Your task to perform on an android device: open the mobile data screen to see how much data has been used Image 0: 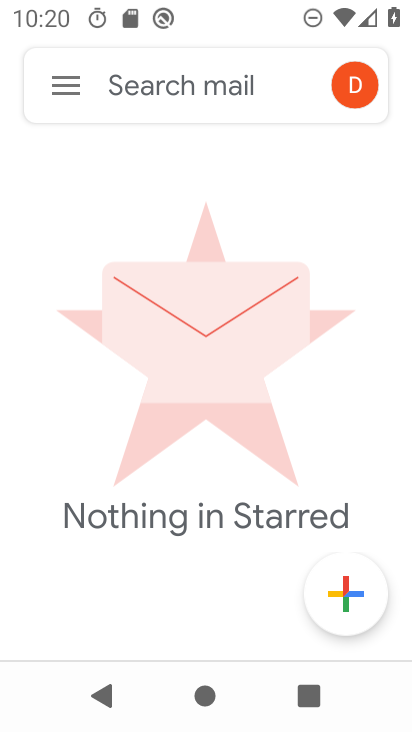
Step 0: press back button
Your task to perform on an android device: open the mobile data screen to see how much data has been used Image 1: 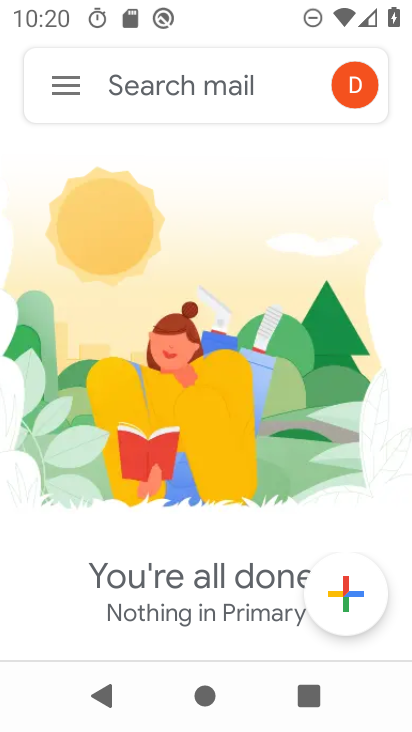
Step 1: press back button
Your task to perform on an android device: open the mobile data screen to see how much data has been used Image 2: 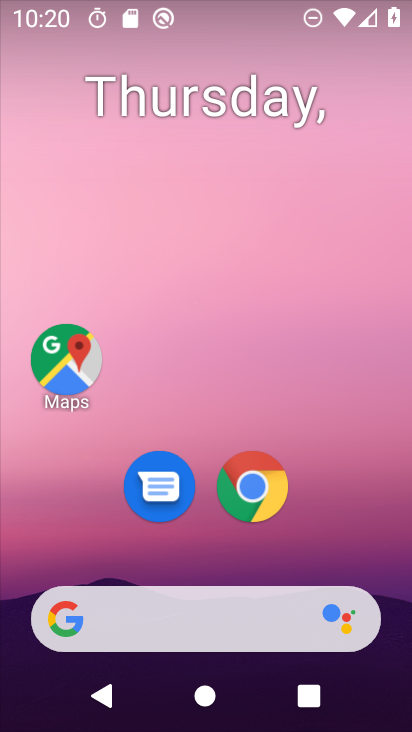
Step 2: drag from (210, 529) to (325, 19)
Your task to perform on an android device: open the mobile data screen to see how much data has been used Image 3: 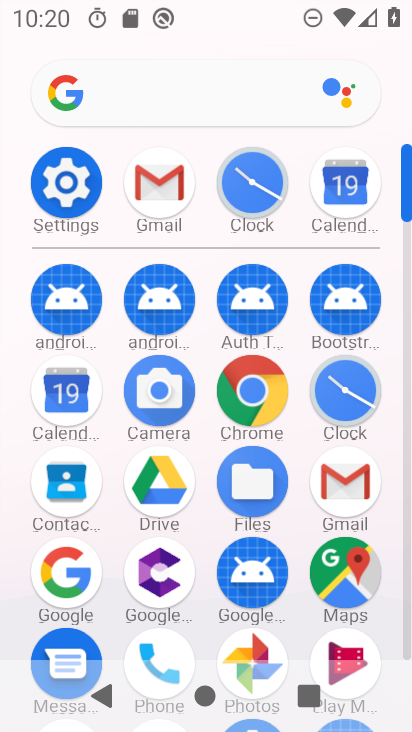
Step 3: click (76, 177)
Your task to perform on an android device: open the mobile data screen to see how much data has been used Image 4: 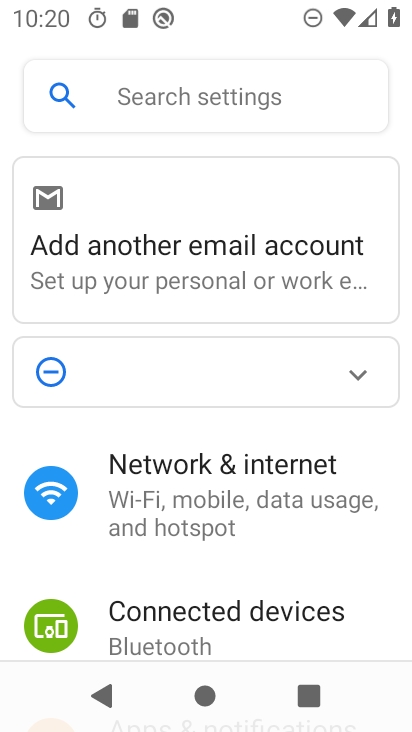
Step 4: click (182, 487)
Your task to perform on an android device: open the mobile data screen to see how much data has been used Image 5: 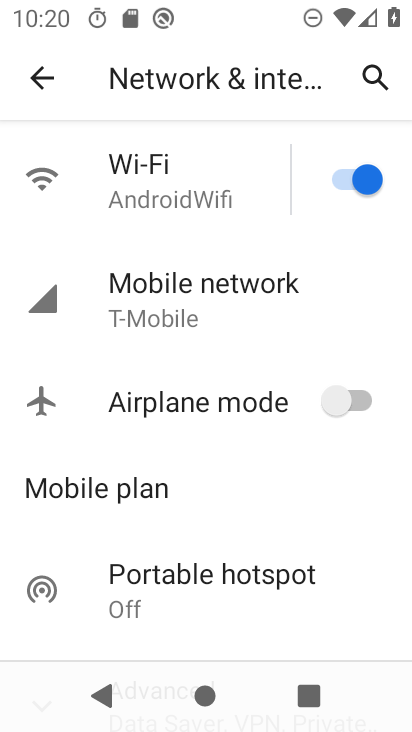
Step 5: click (157, 291)
Your task to perform on an android device: open the mobile data screen to see how much data has been used Image 6: 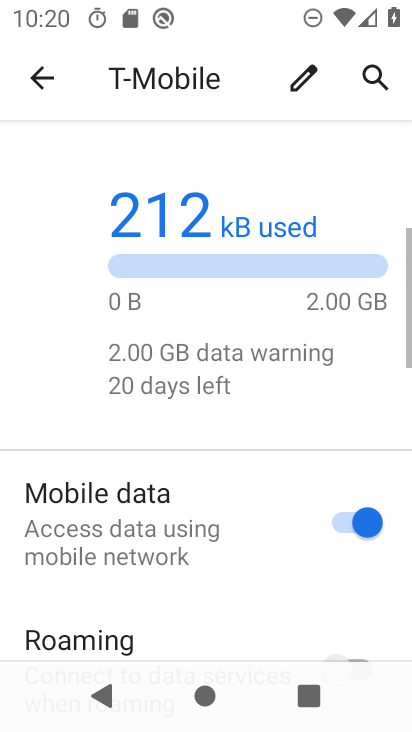
Step 6: drag from (184, 578) to (292, 120)
Your task to perform on an android device: open the mobile data screen to see how much data has been used Image 7: 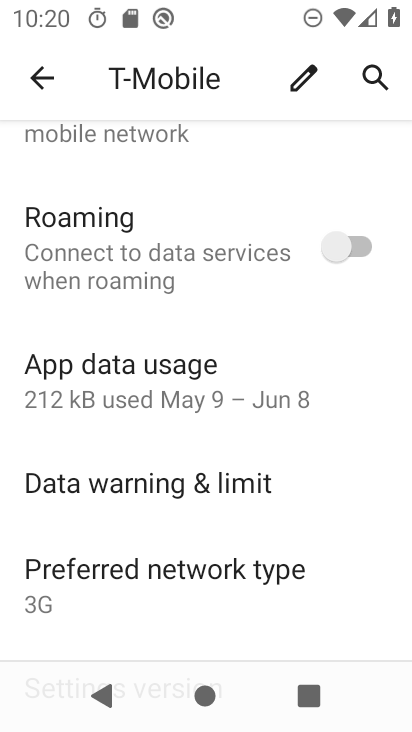
Step 7: click (163, 382)
Your task to perform on an android device: open the mobile data screen to see how much data has been used Image 8: 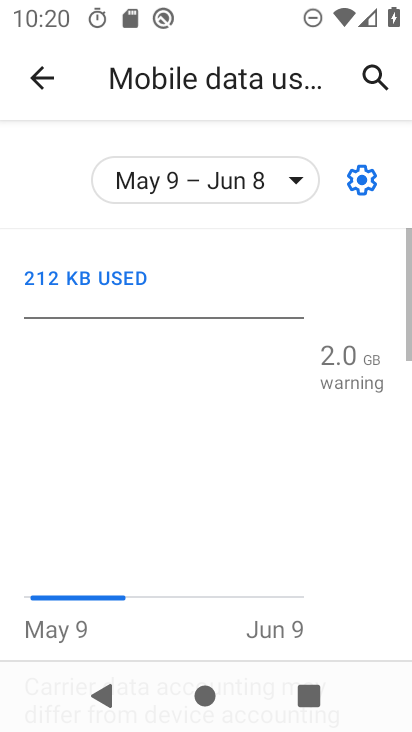
Step 8: task complete